Your task to perform on an android device: turn off airplane mode Image 0: 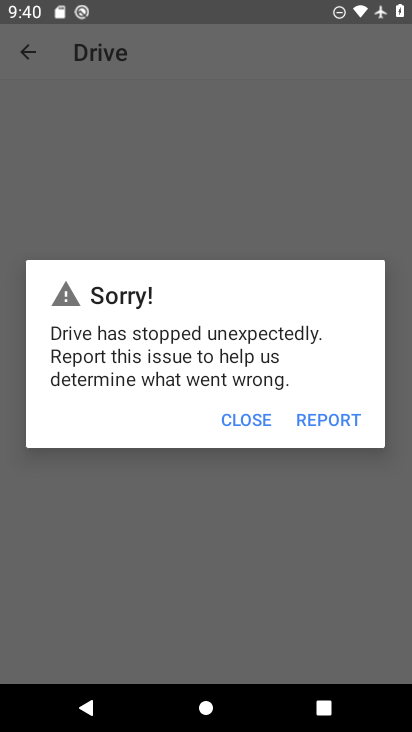
Step 0: press home button
Your task to perform on an android device: turn off airplane mode Image 1: 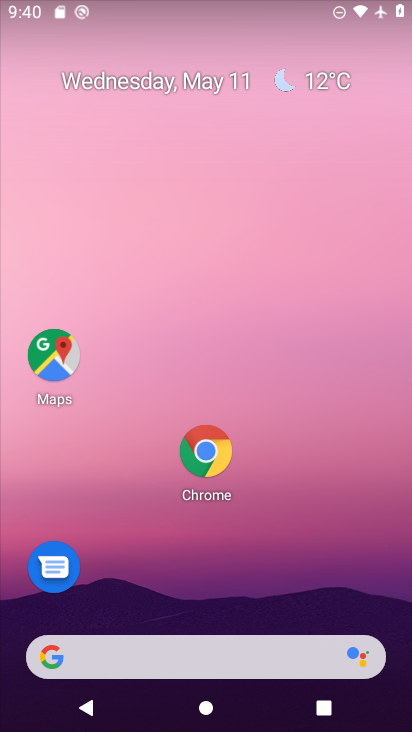
Step 1: drag from (181, 665) to (280, 178)
Your task to perform on an android device: turn off airplane mode Image 2: 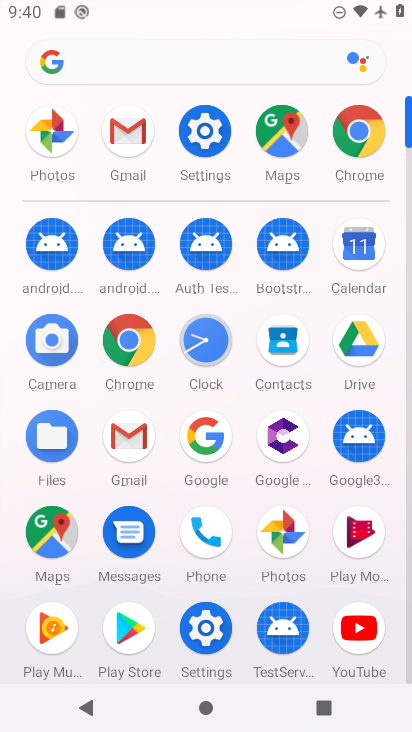
Step 2: click (209, 144)
Your task to perform on an android device: turn off airplane mode Image 3: 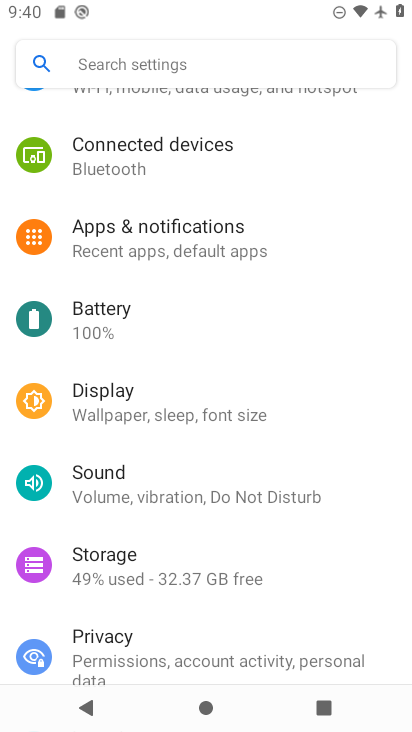
Step 3: drag from (281, 182) to (221, 436)
Your task to perform on an android device: turn off airplane mode Image 4: 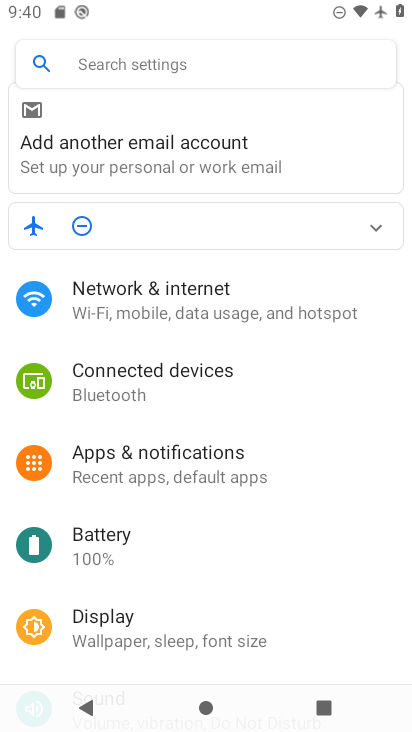
Step 4: click (201, 302)
Your task to perform on an android device: turn off airplane mode Image 5: 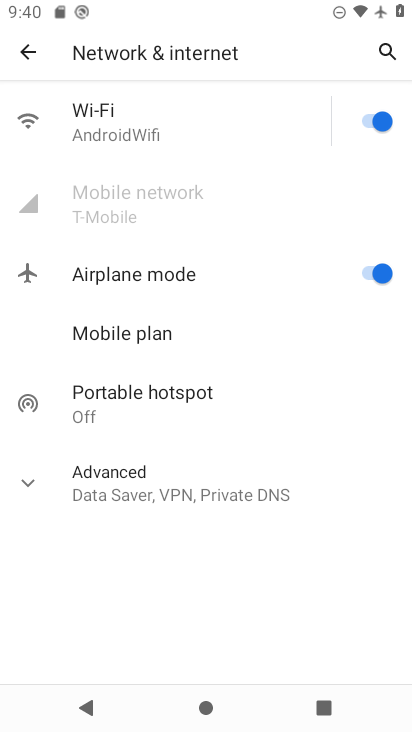
Step 5: click (372, 273)
Your task to perform on an android device: turn off airplane mode Image 6: 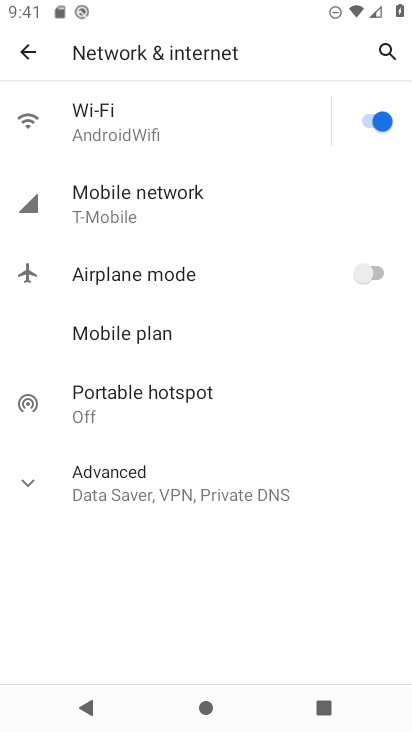
Step 6: task complete